Your task to perform on an android device: open wifi settings Image 0: 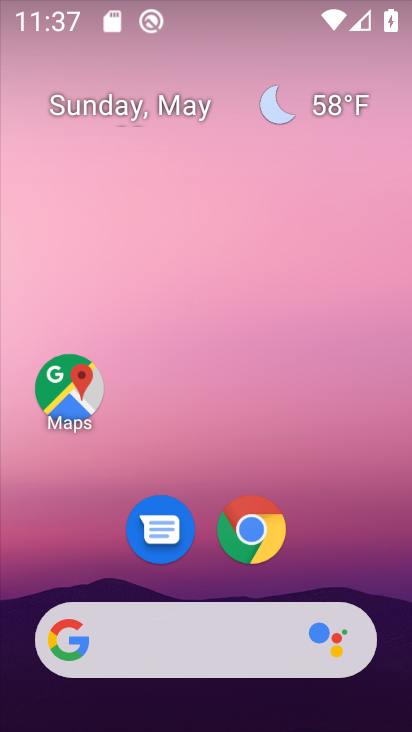
Step 0: drag from (199, 643) to (129, 113)
Your task to perform on an android device: open wifi settings Image 1: 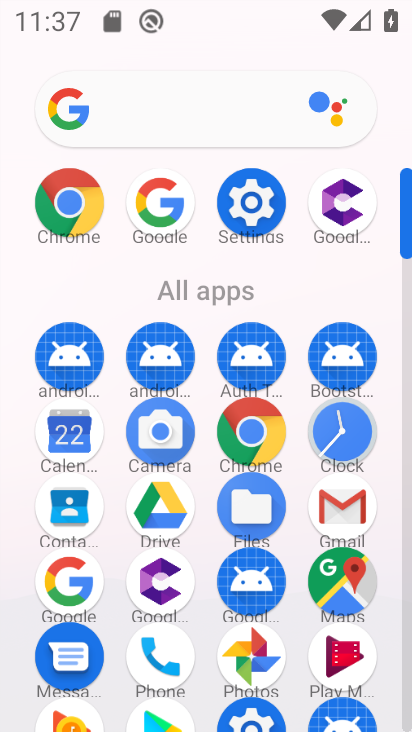
Step 1: click (260, 189)
Your task to perform on an android device: open wifi settings Image 2: 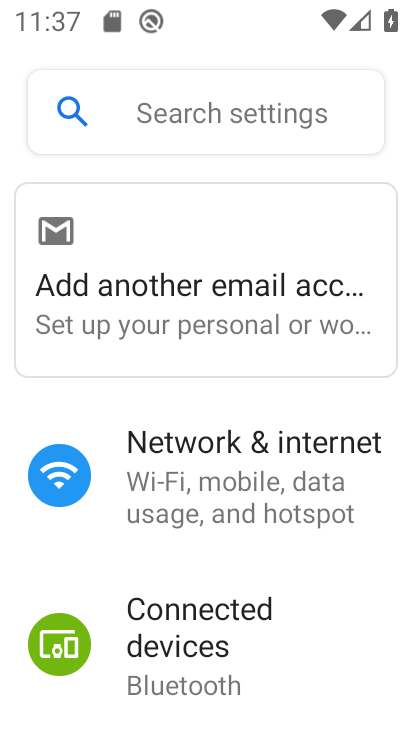
Step 2: click (195, 455)
Your task to perform on an android device: open wifi settings Image 3: 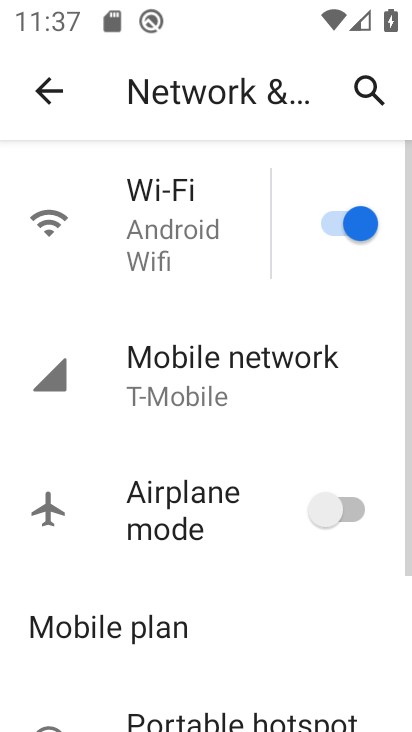
Step 3: click (176, 245)
Your task to perform on an android device: open wifi settings Image 4: 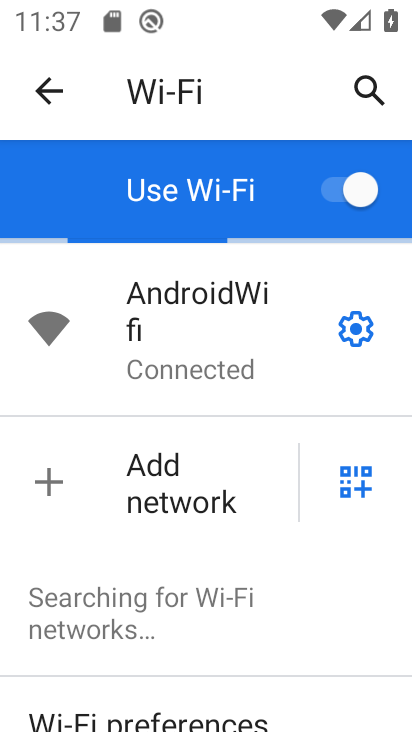
Step 4: task complete